Your task to perform on an android device: set an alarm Image 0: 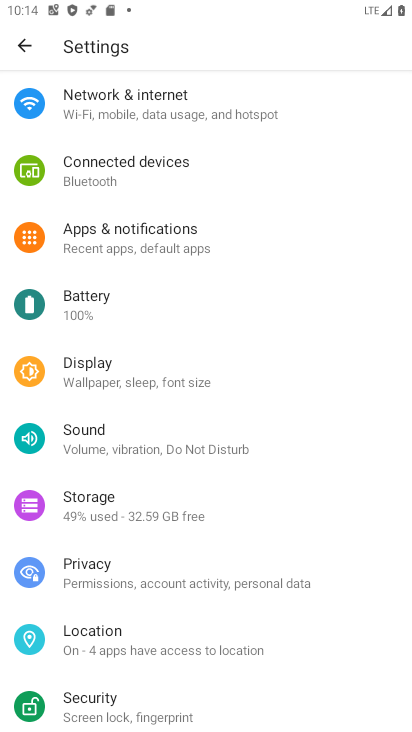
Step 0: press home button
Your task to perform on an android device: set an alarm Image 1: 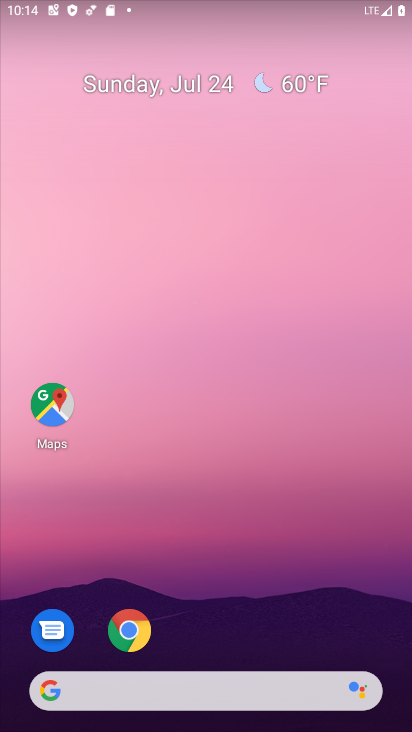
Step 1: drag from (278, 599) to (277, 20)
Your task to perform on an android device: set an alarm Image 2: 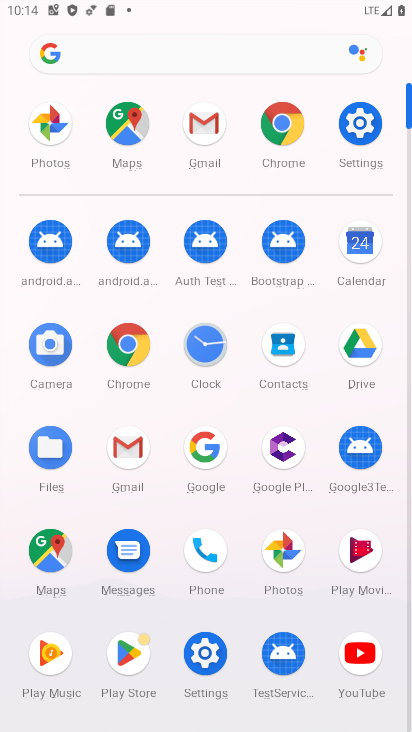
Step 2: click (216, 356)
Your task to perform on an android device: set an alarm Image 3: 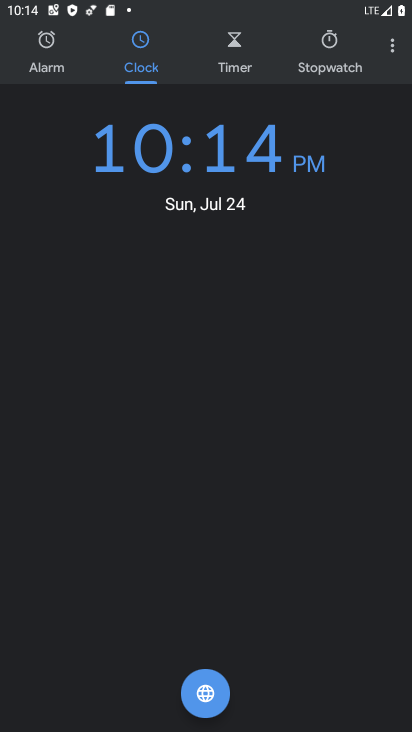
Step 3: click (41, 43)
Your task to perform on an android device: set an alarm Image 4: 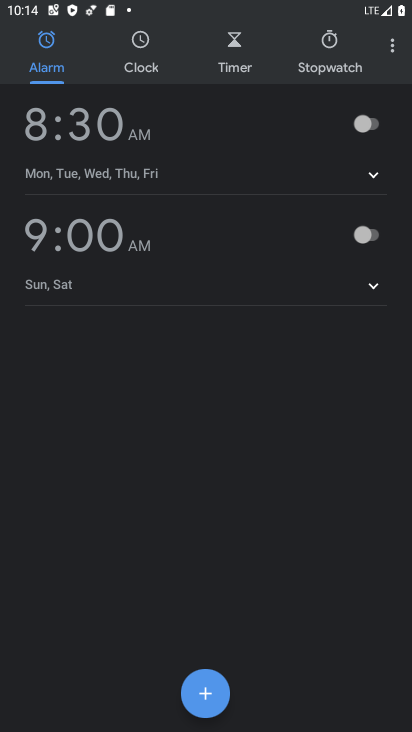
Step 4: click (381, 130)
Your task to perform on an android device: set an alarm Image 5: 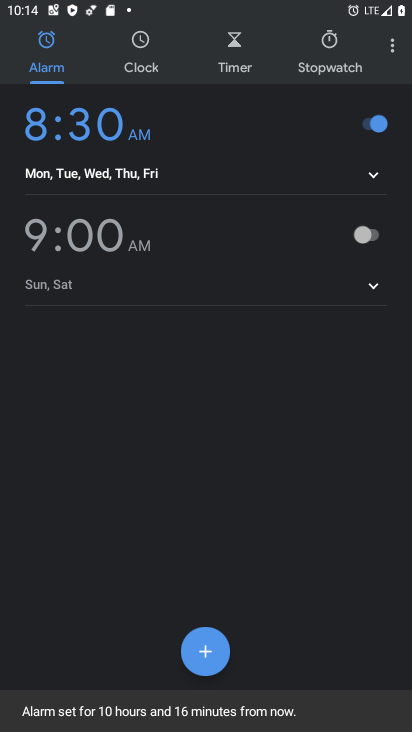
Step 5: click (370, 170)
Your task to perform on an android device: set an alarm Image 6: 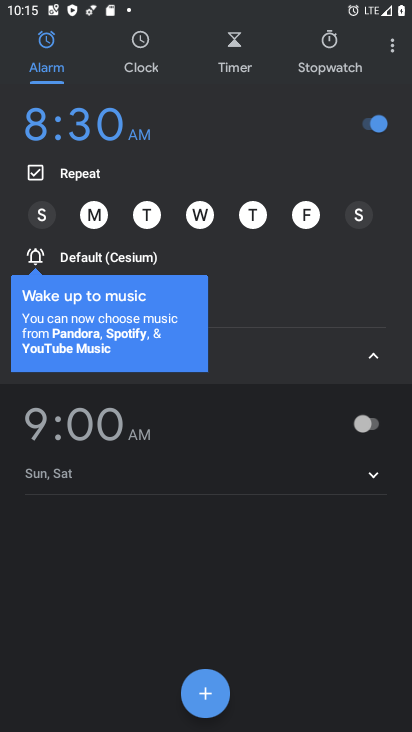
Step 6: click (83, 260)
Your task to perform on an android device: set an alarm Image 7: 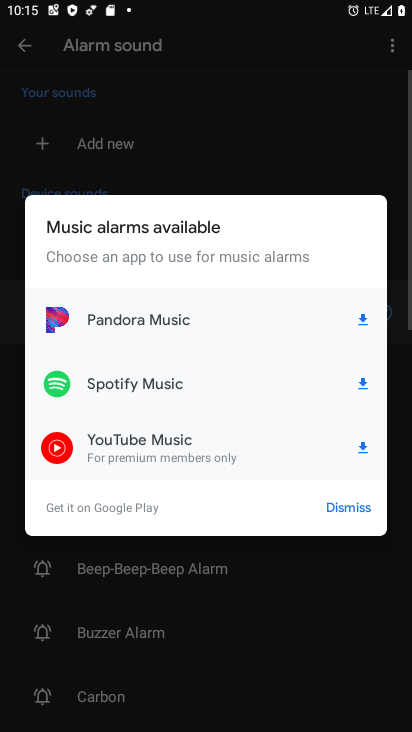
Step 7: click (337, 512)
Your task to perform on an android device: set an alarm Image 8: 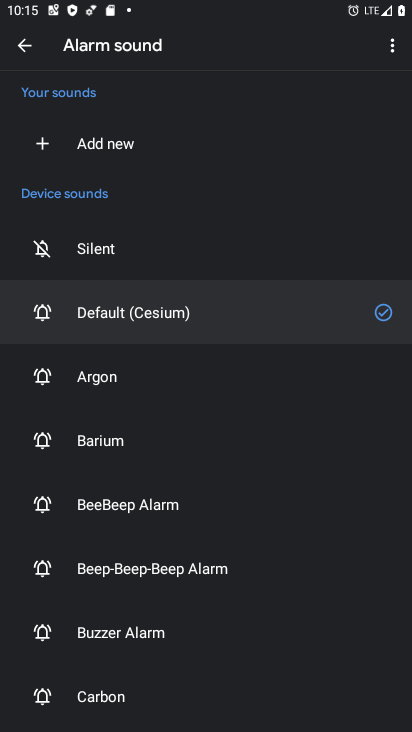
Step 8: click (156, 375)
Your task to perform on an android device: set an alarm Image 9: 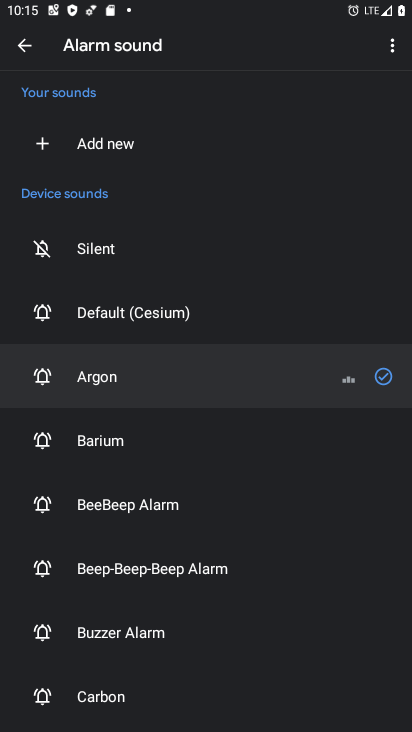
Step 9: task complete